Your task to perform on an android device: Show the shopping cart on amazon. Image 0: 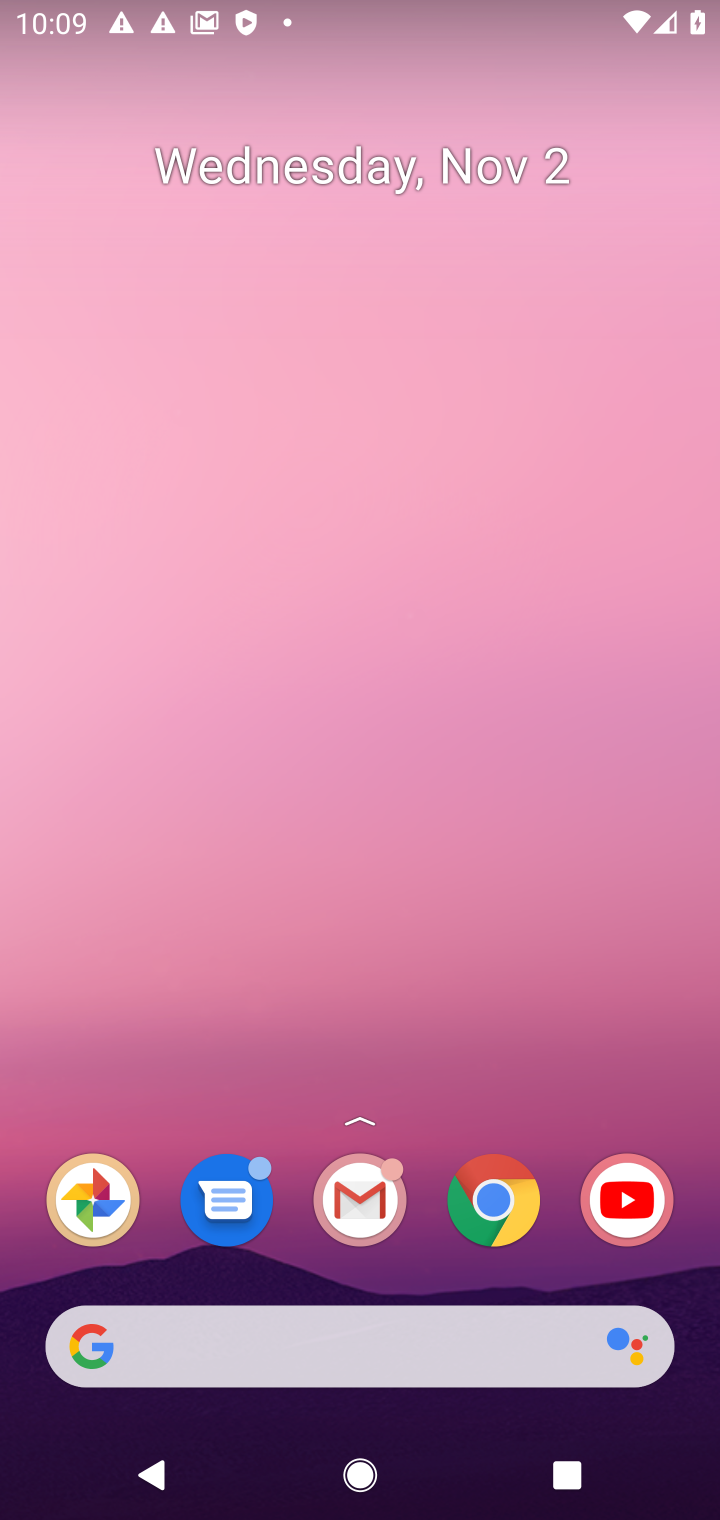
Step 0: click (502, 1203)
Your task to perform on an android device: Show the shopping cart on amazon. Image 1: 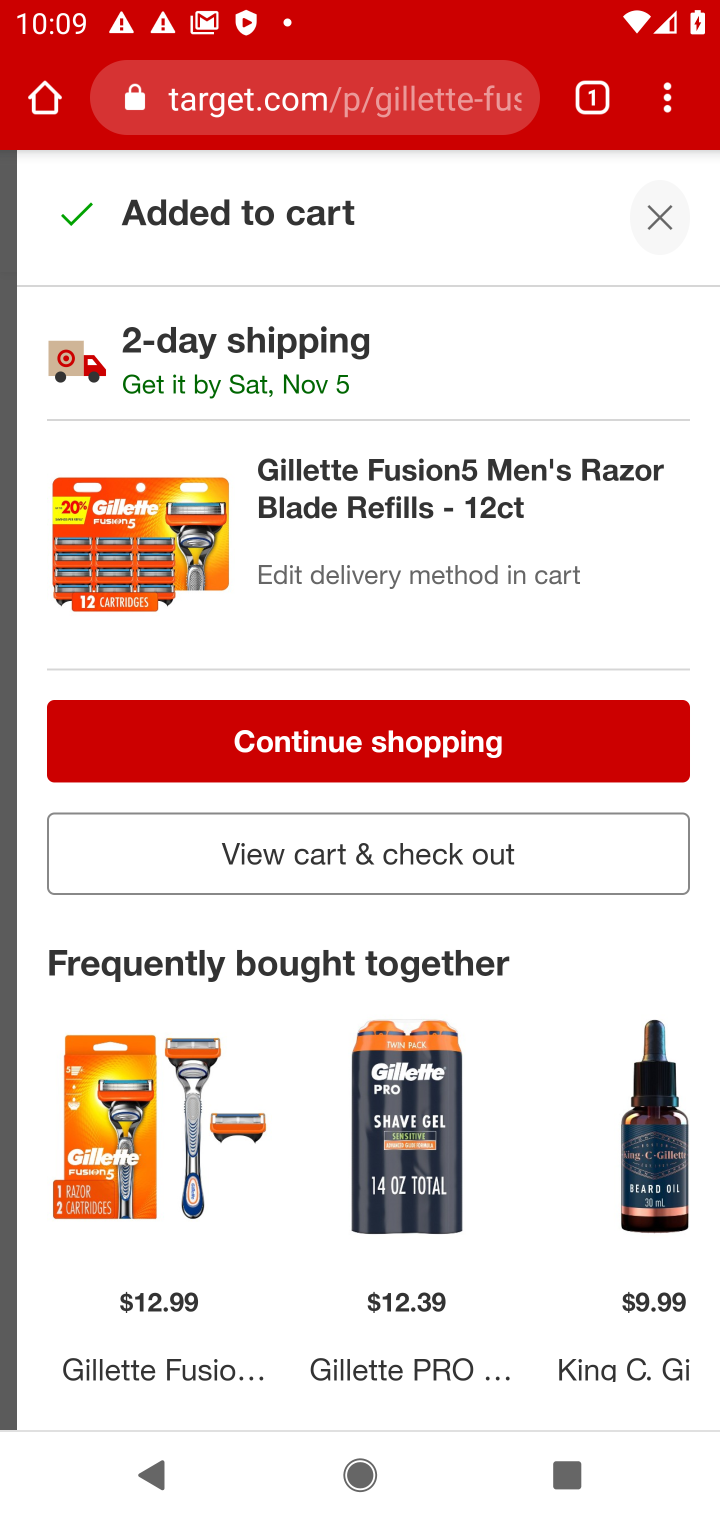
Step 1: click (43, 101)
Your task to perform on an android device: Show the shopping cart on amazon. Image 2: 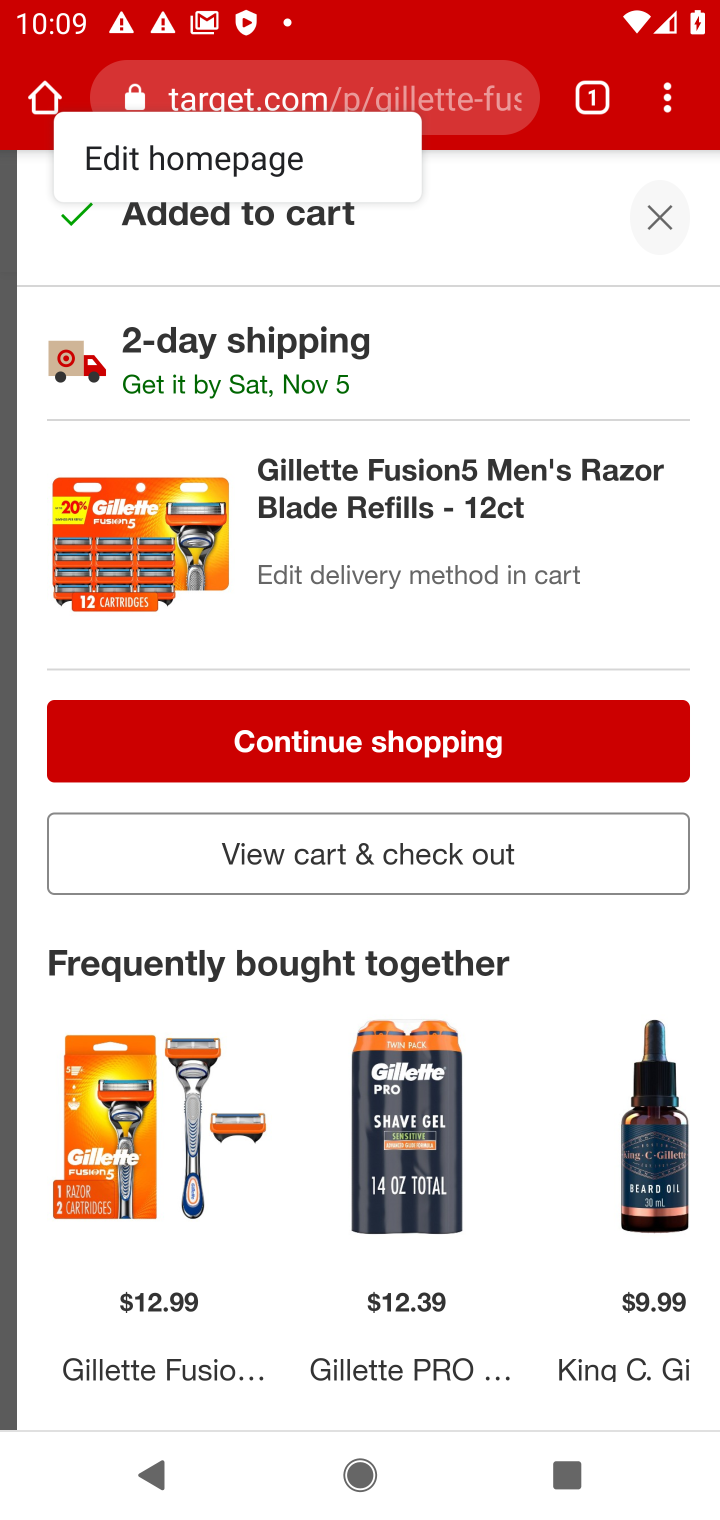
Step 2: click (45, 103)
Your task to perform on an android device: Show the shopping cart on amazon. Image 3: 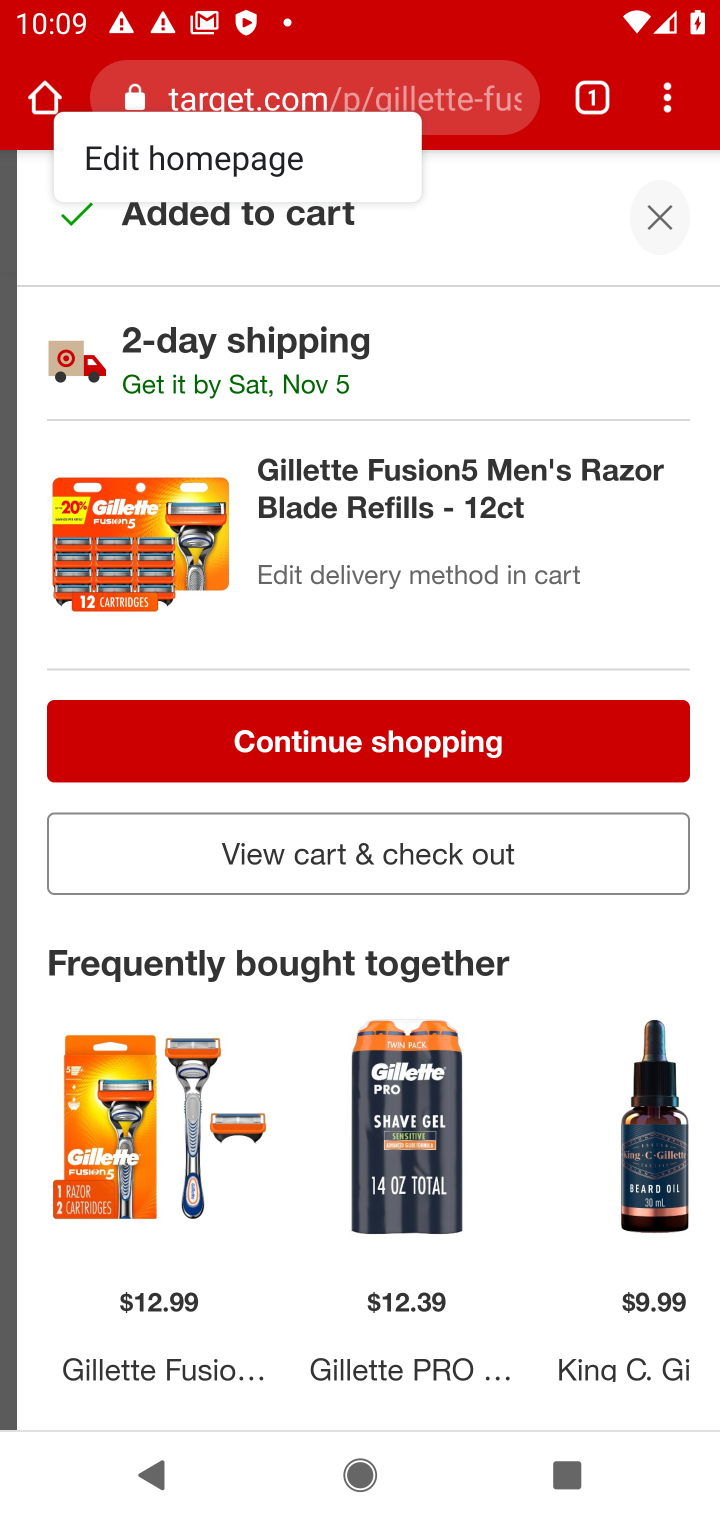
Step 3: click (459, 96)
Your task to perform on an android device: Show the shopping cart on amazon. Image 4: 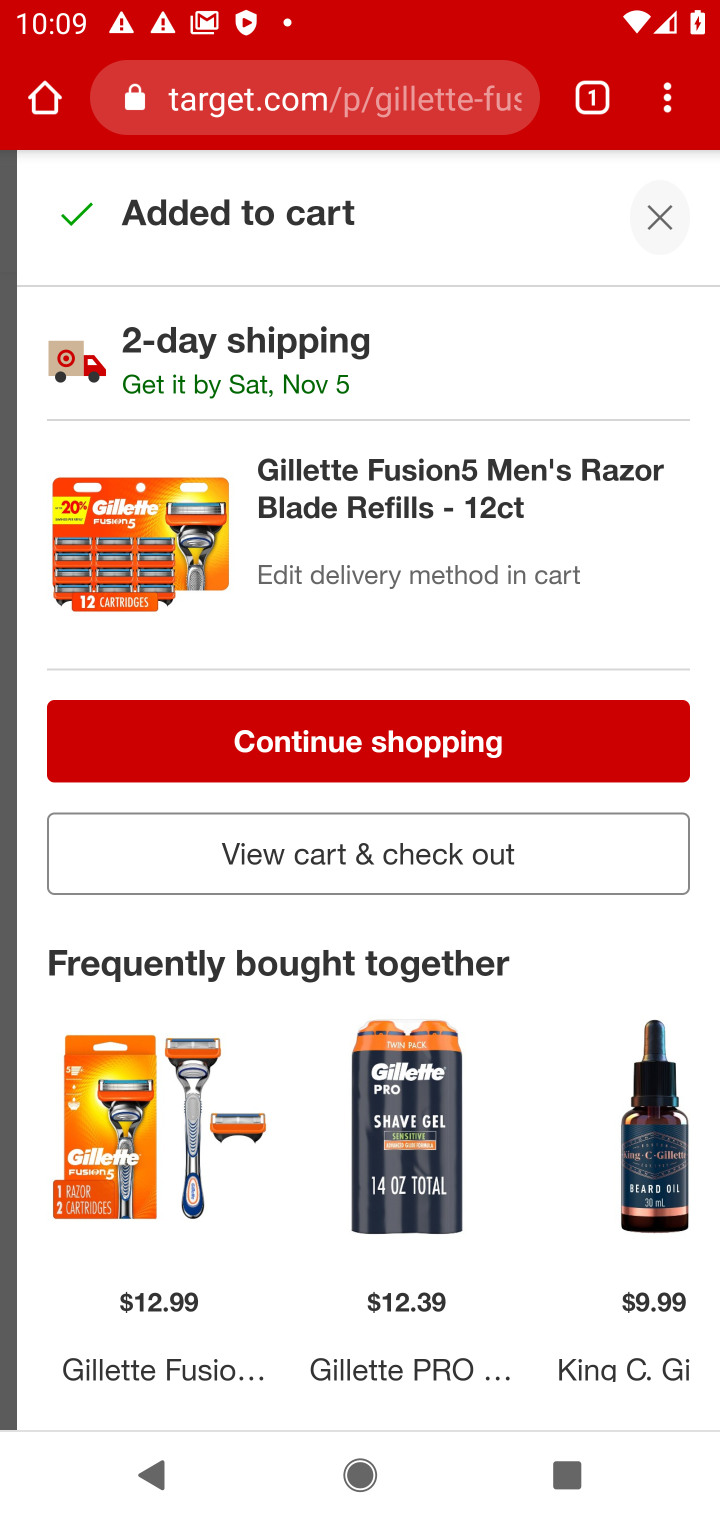
Step 4: click (39, 106)
Your task to perform on an android device: Show the shopping cart on amazon. Image 5: 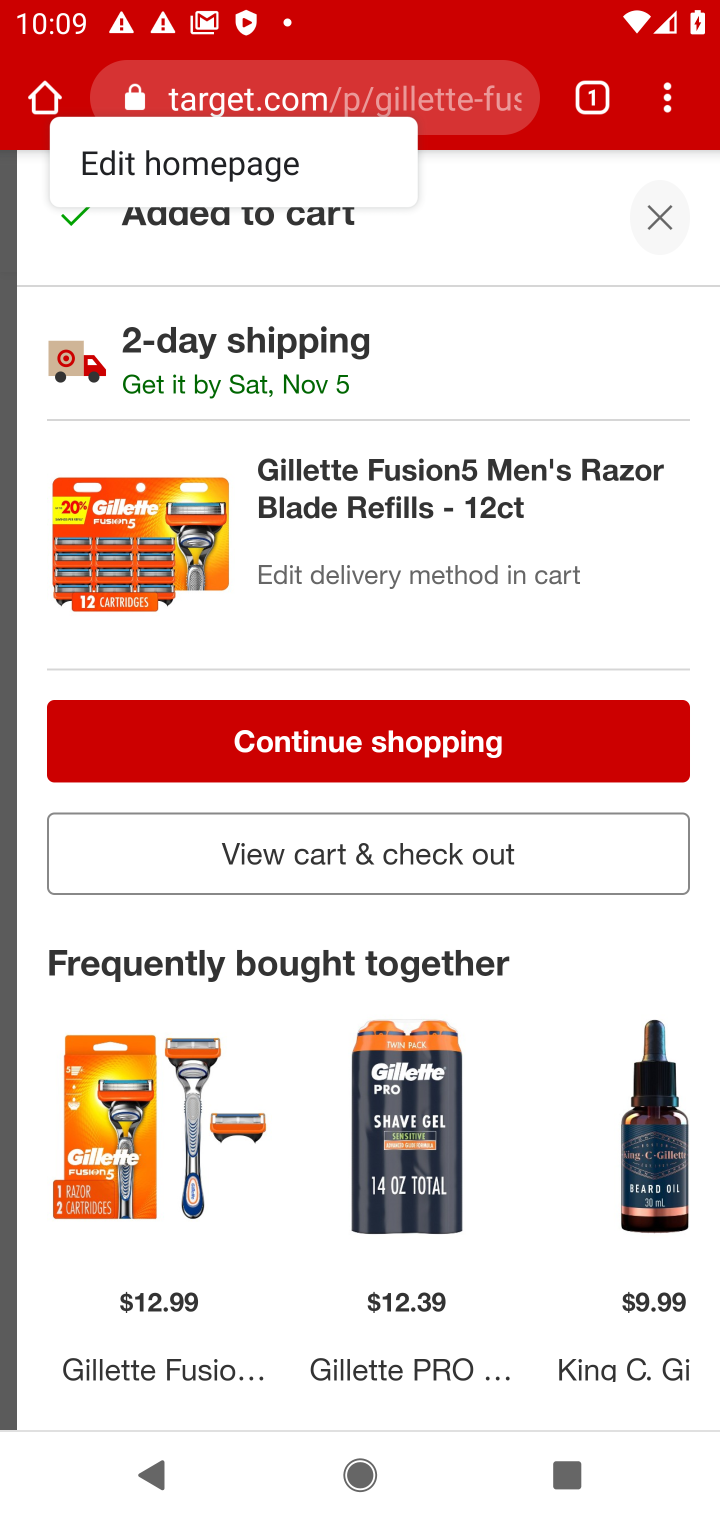
Step 5: click (445, 101)
Your task to perform on an android device: Show the shopping cart on amazon. Image 6: 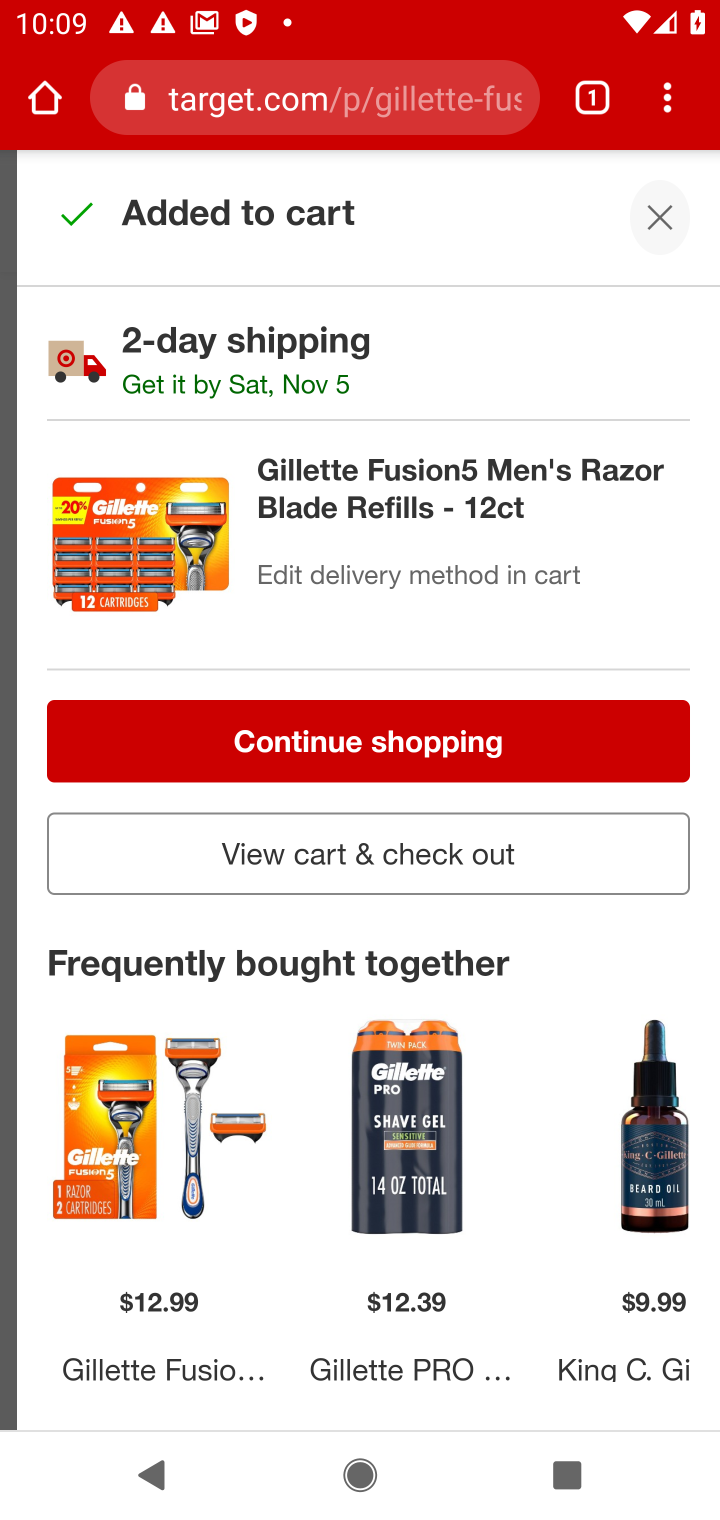
Step 6: click (447, 99)
Your task to perform on an android device: Show the shopping cart on amazon. Image 7: 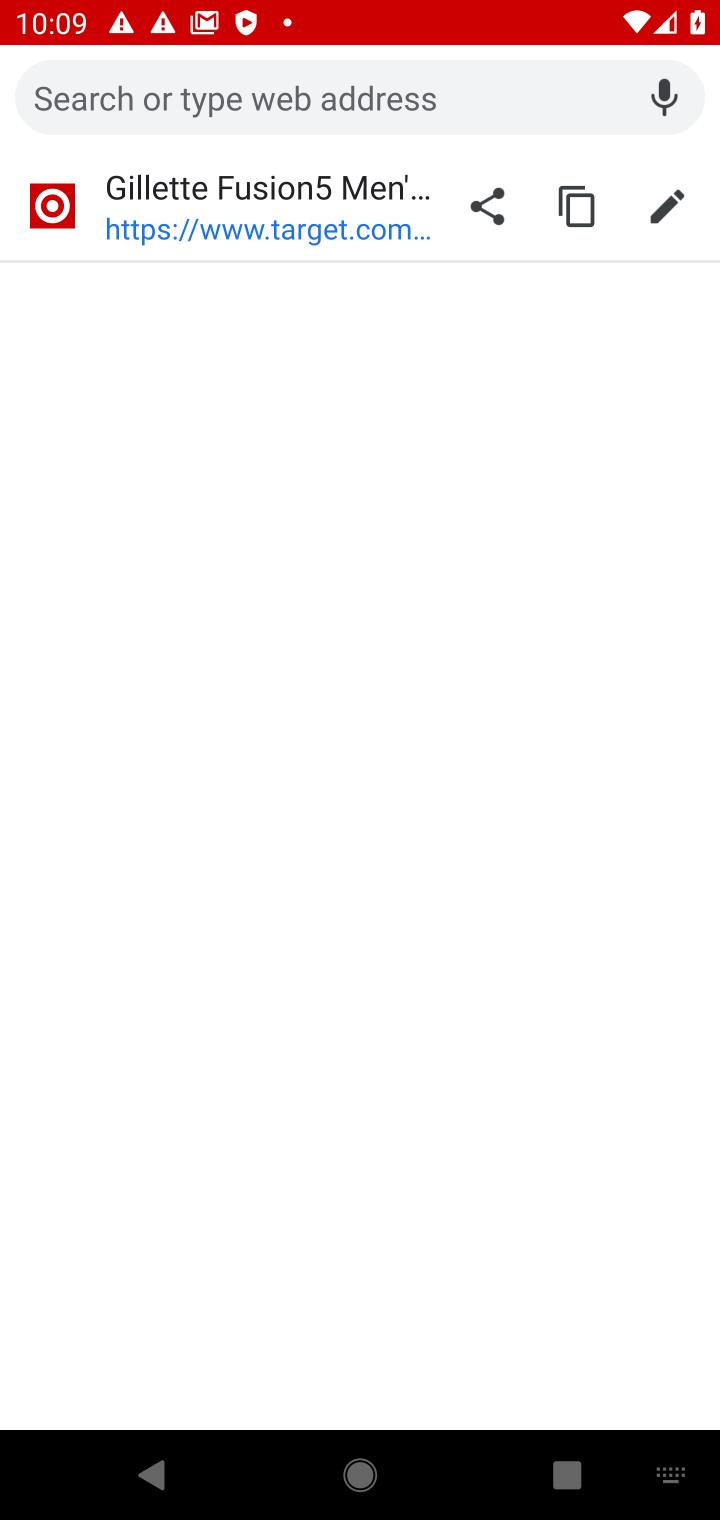
Step 7: type "amazon"
Your task to perform on an android device: Show the shopping cart on amazon. Image 8: 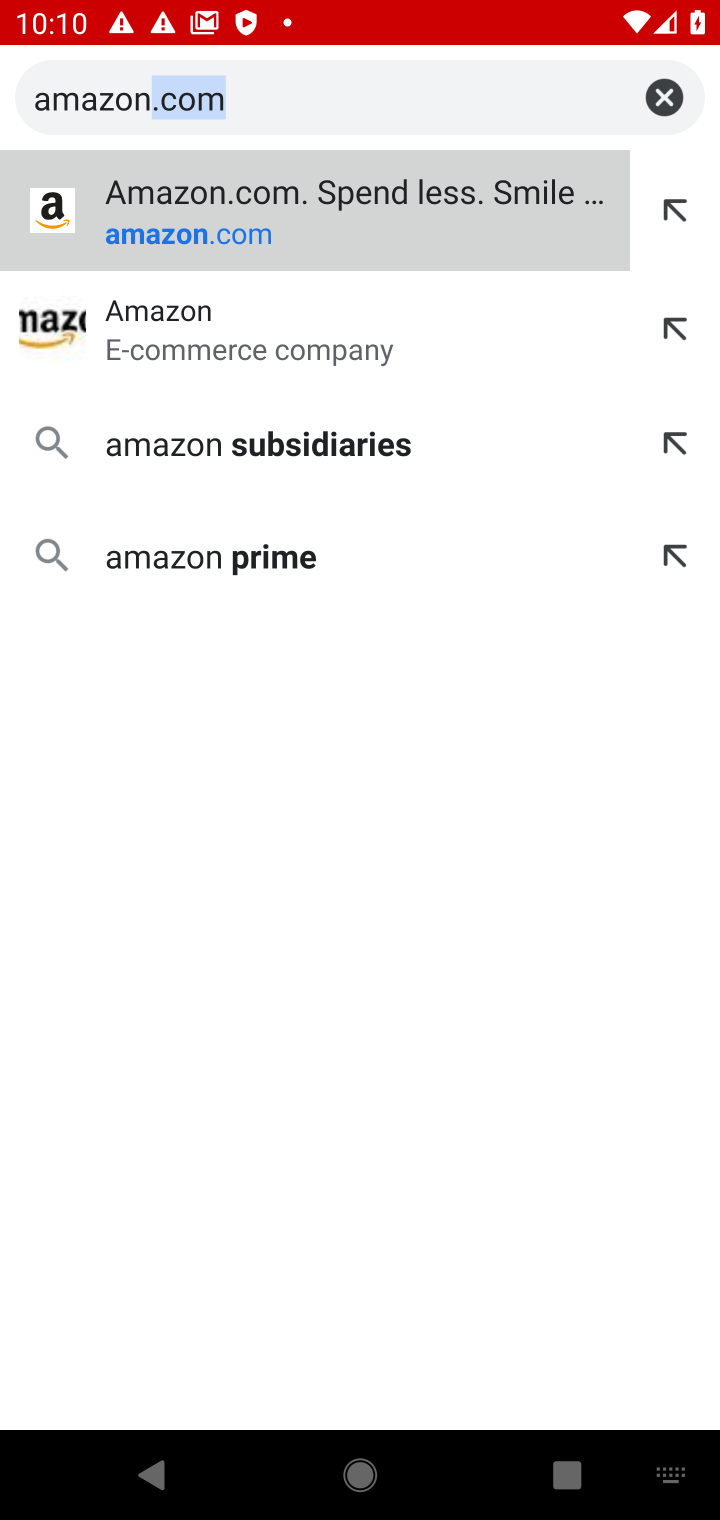
Step 8: press enter
Your task to perform on an android device: Show the shopping cart on amazon. Image 9: 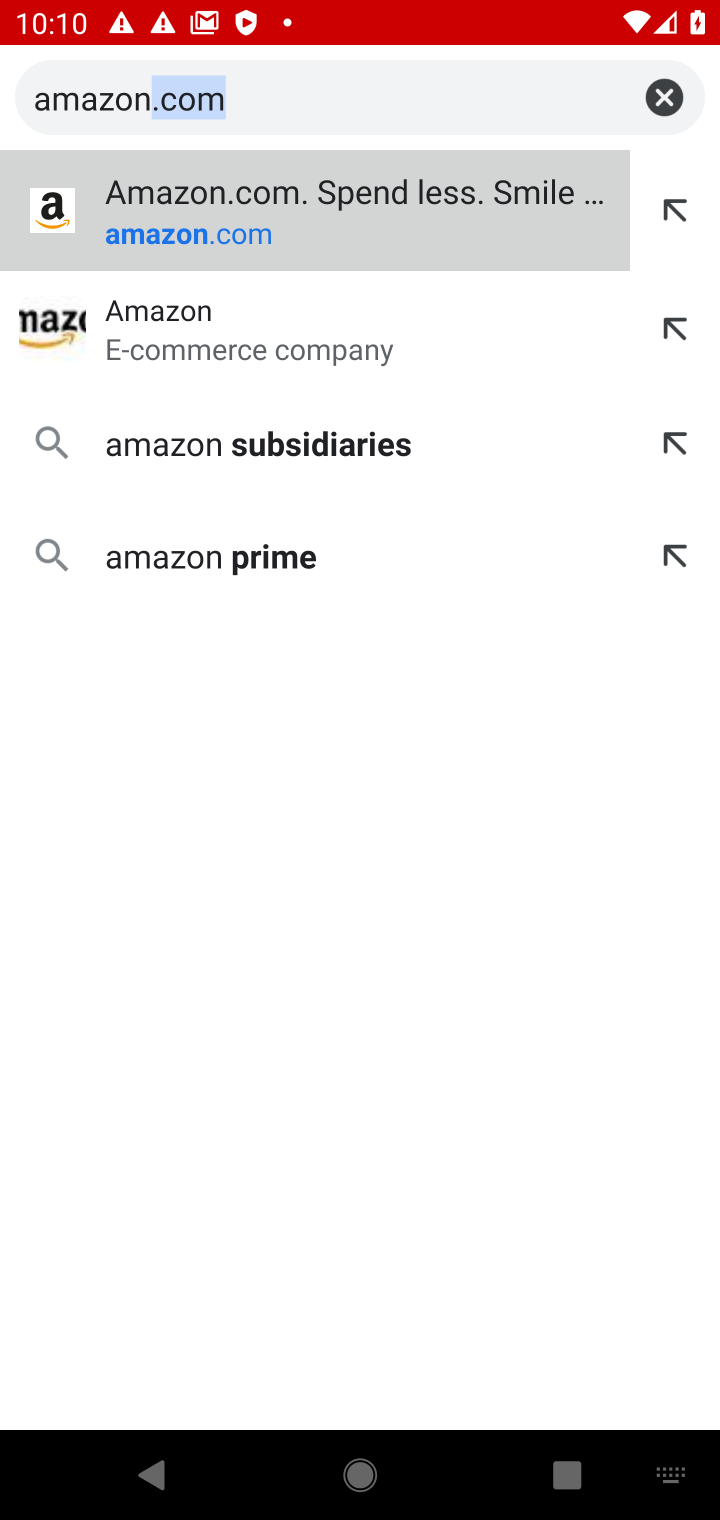
Step 9: click (399, 98)
Your task to perform on an android device: Show the shopping cart on amazon. Image 10: 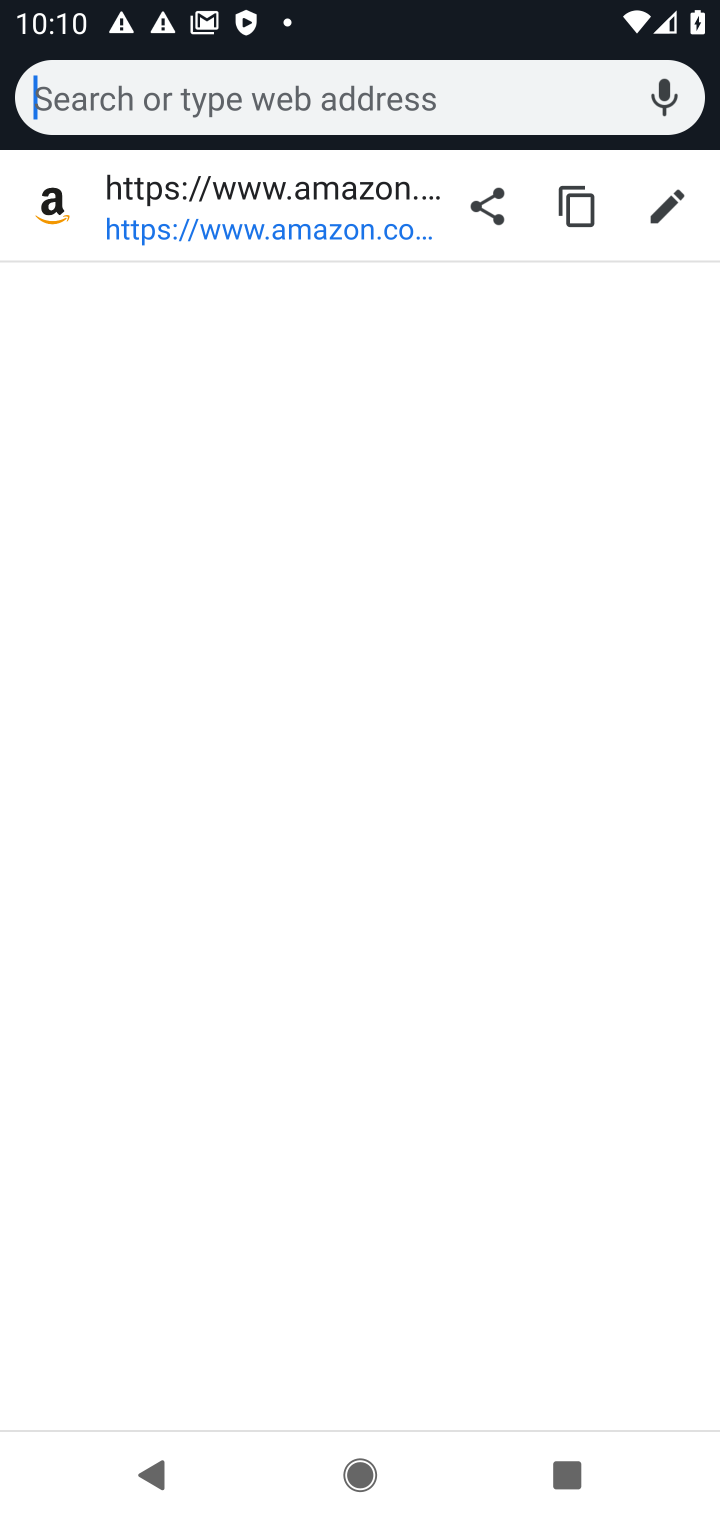
Step 10: click (356, 186)
Your task to perform on an android device: Show the shopping cart on amazon. Image 11: 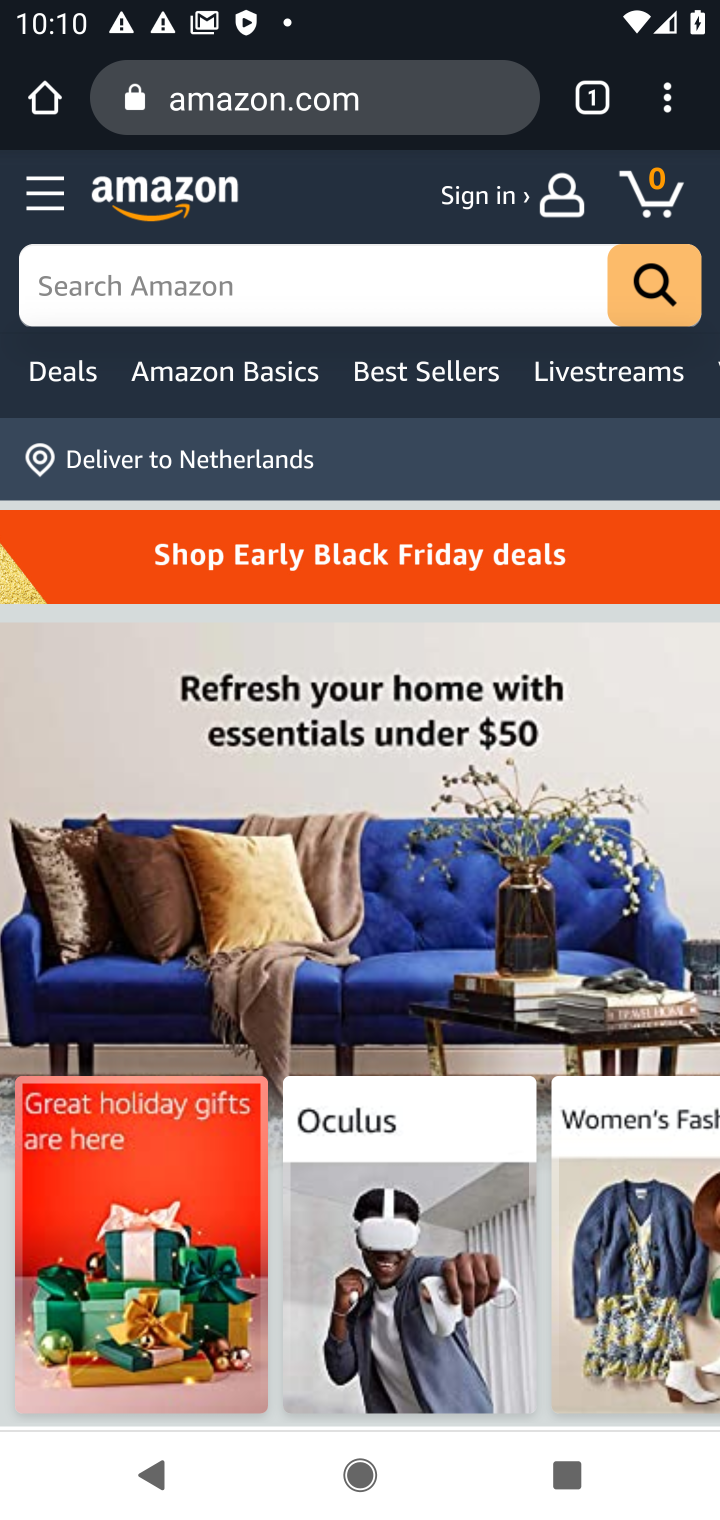
Step 11: click (650, 197)
Your task to perform on an android device: Show the shopping cart on amazon. Image 12: 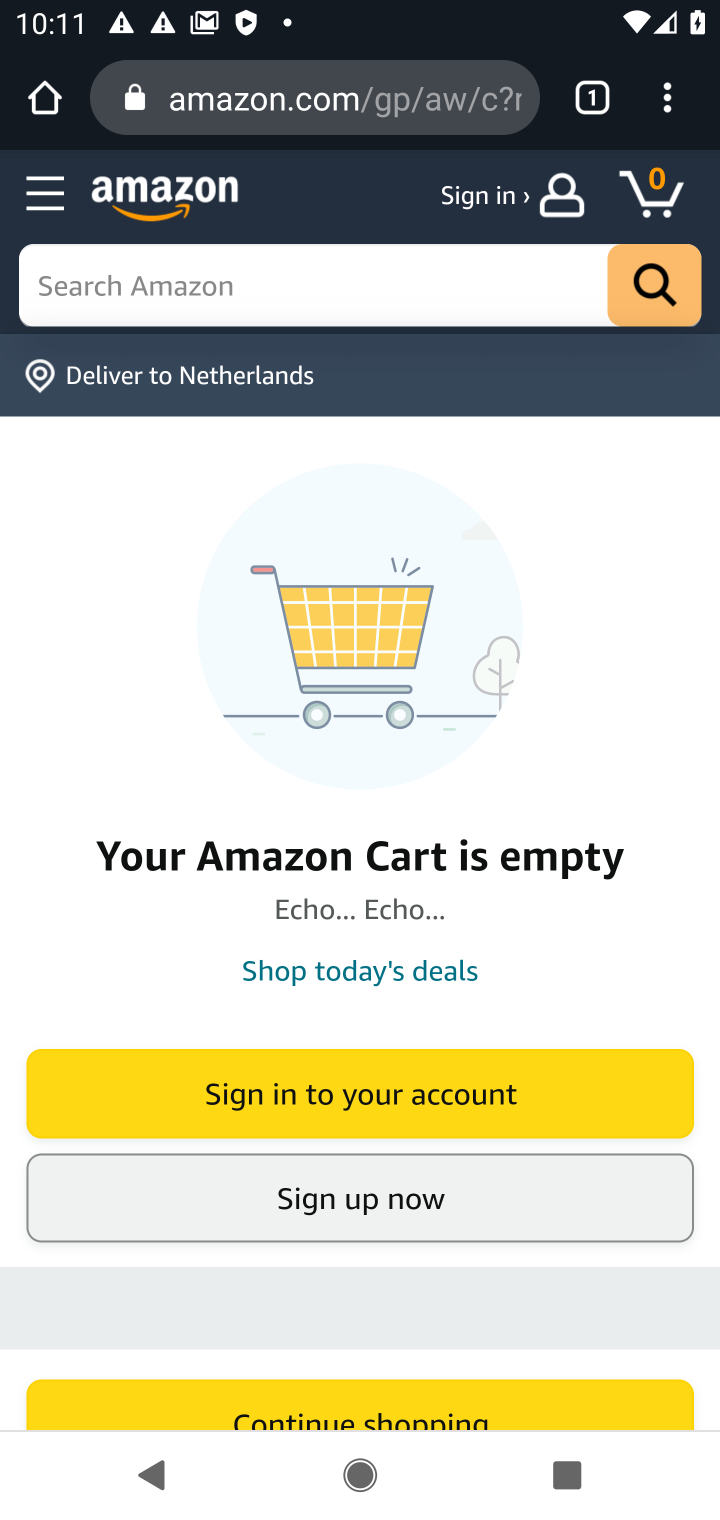
Step 12: task complete